Your task to perform on an android device: Open the contacts Image 0: 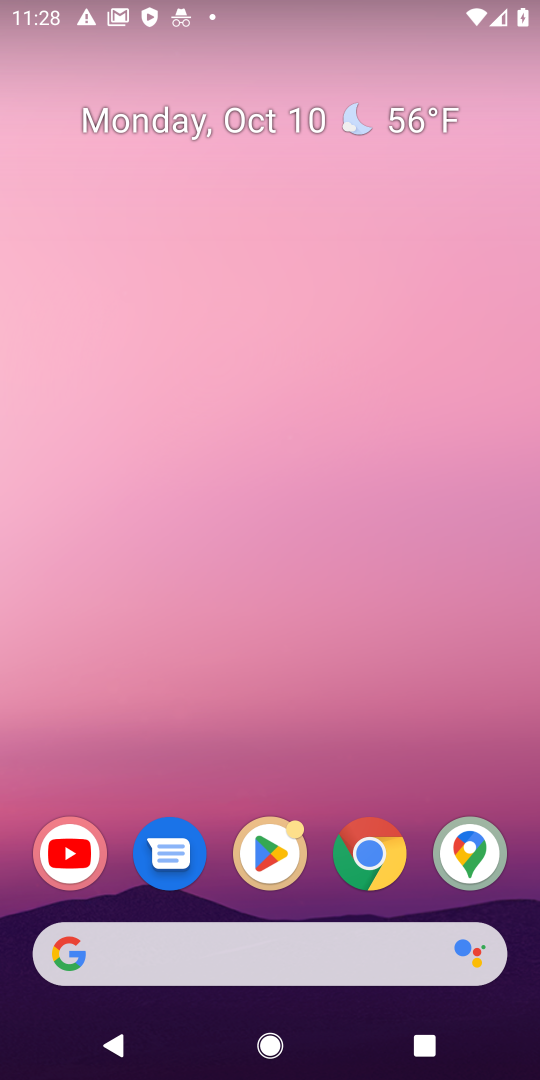
Step 0: press home button
Your task to perform on an android device: Open the contacts Image 1: 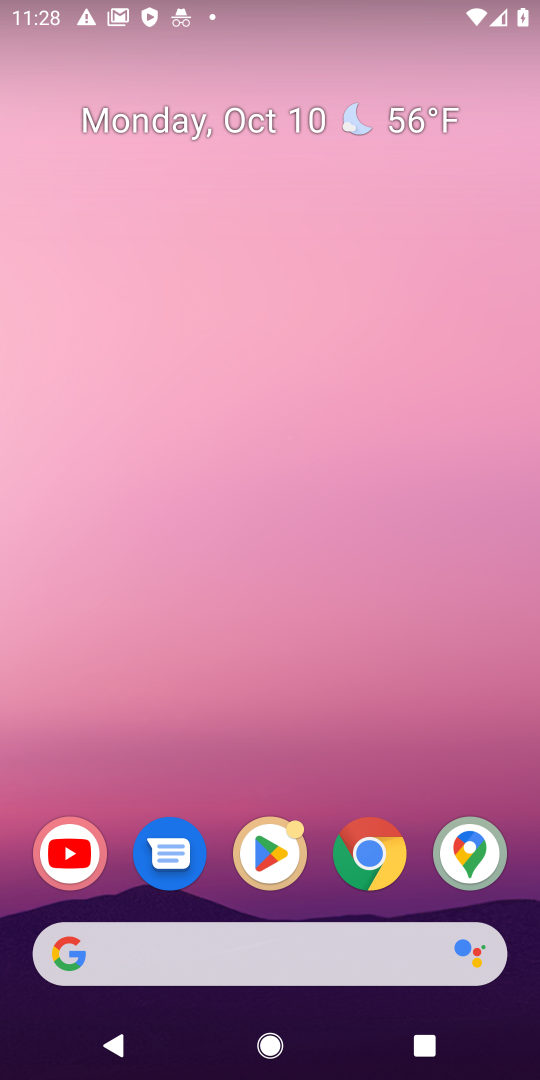
Step 1: drag from (464, 699) to (507, 52)
Your task to perform on an android device: Open the contacts Image 2: 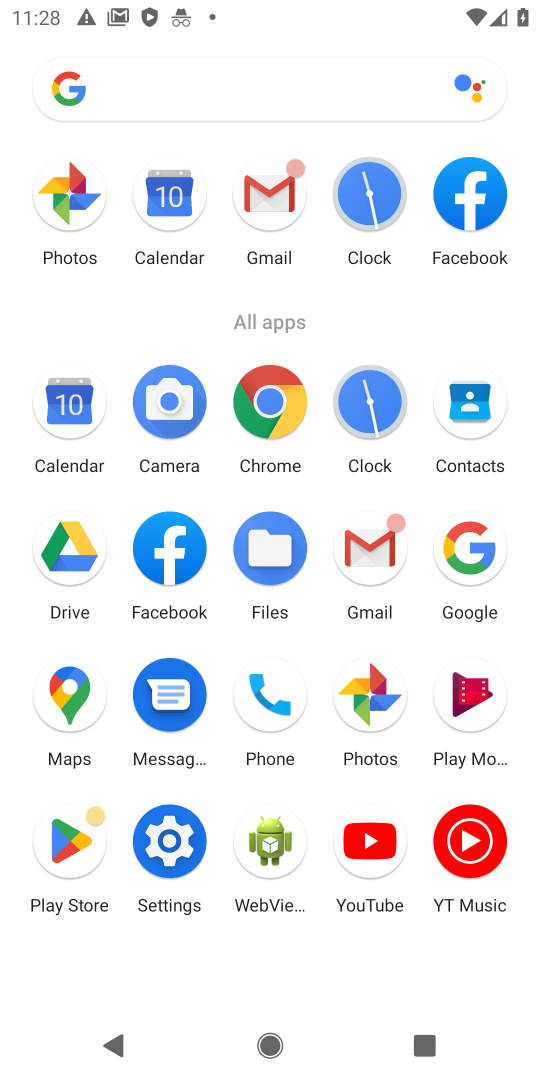
Step 2: click (453, 424)
Your task to perform on an android device: Open the contacts Image 3: 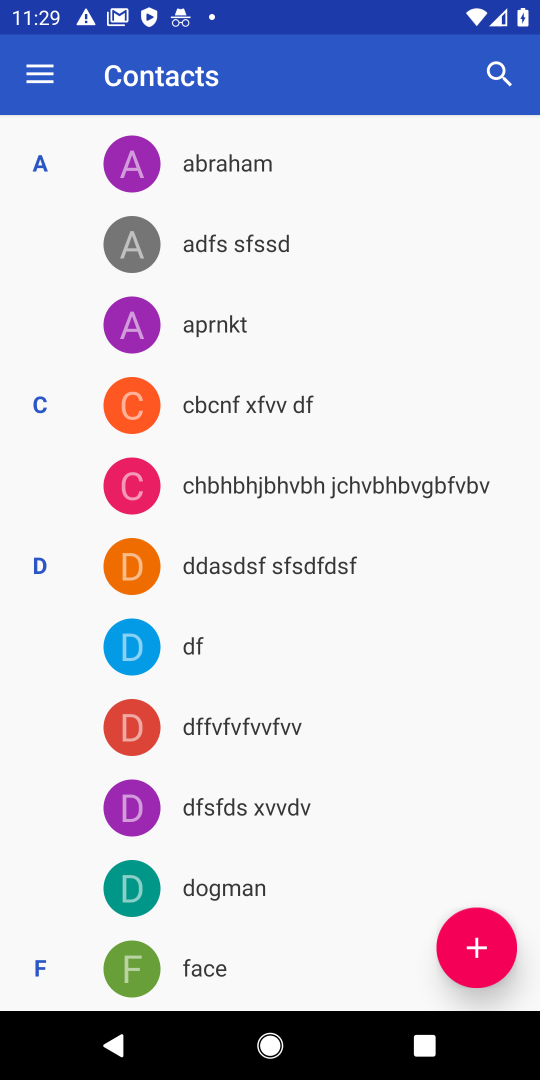
Step 3: task complete